Your task to perform on an android device: turn off picture-in-picture Image 0: 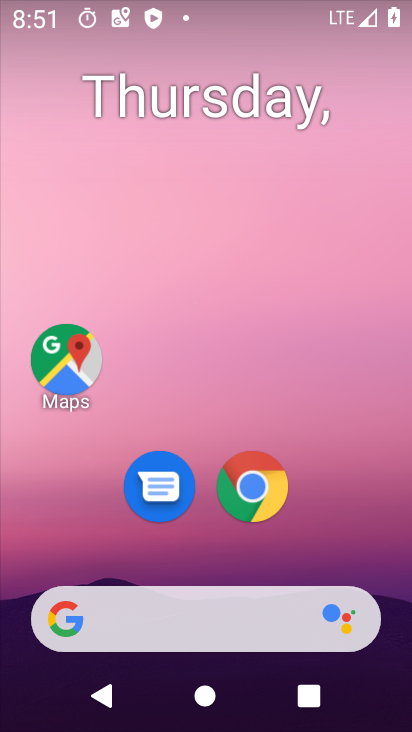
Step 0: drag from (161, 572) to (161, 22)
Your task to perform on an android device: turn off picture-in-picture Image 1: 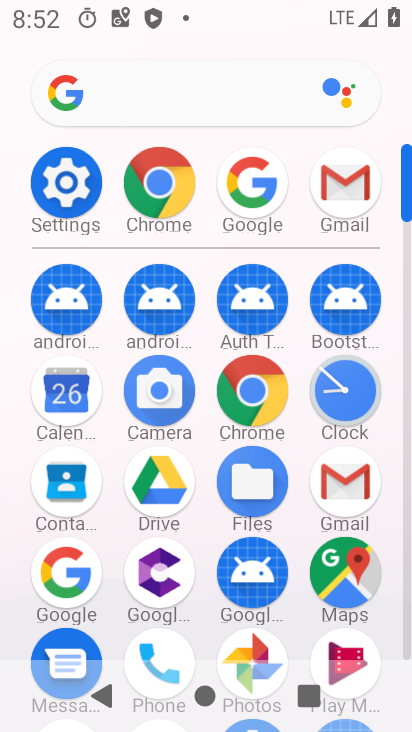
Step 1: click (82, 194)
Your task to perform on an android device: turn off picture-in-picture Image 2: 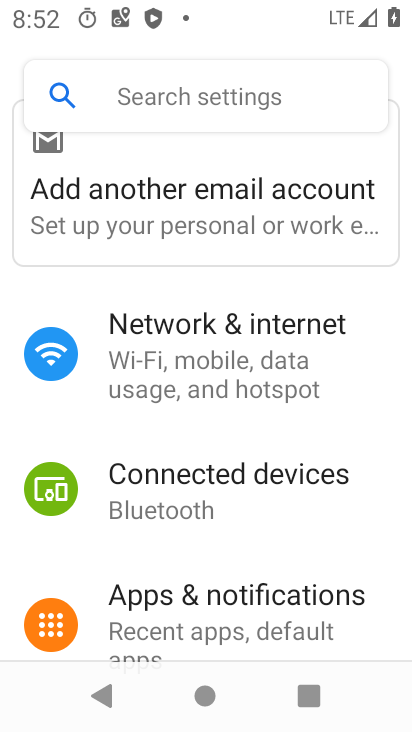
Step 2: click (189, 610)
Your task to perform on an android device: turn off picture-in-picture Image 3: 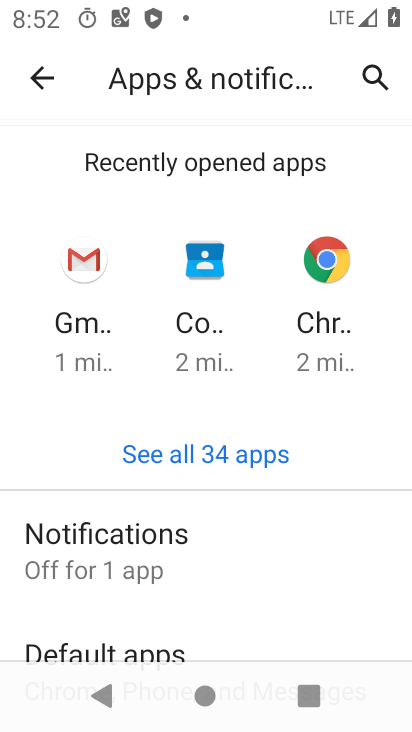
Step 3: drag from (196, 512) to (301, 7)
Your task to perform on an android device: turn off picture-in-picture Image 4: 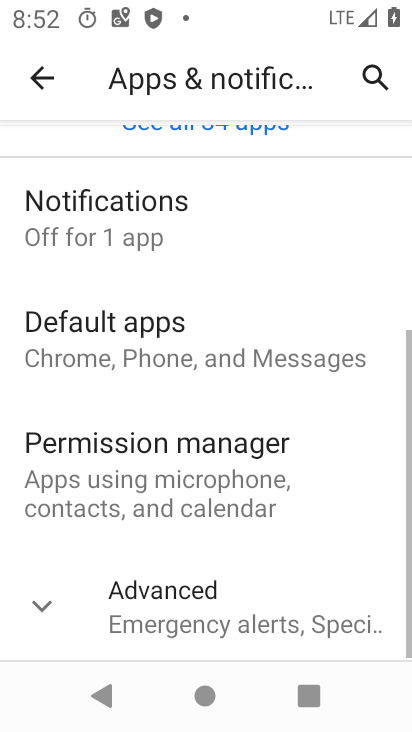
Step 4: click (272, 628)
Your task to perform on an android device: turn off picture-in-picture Image 5: 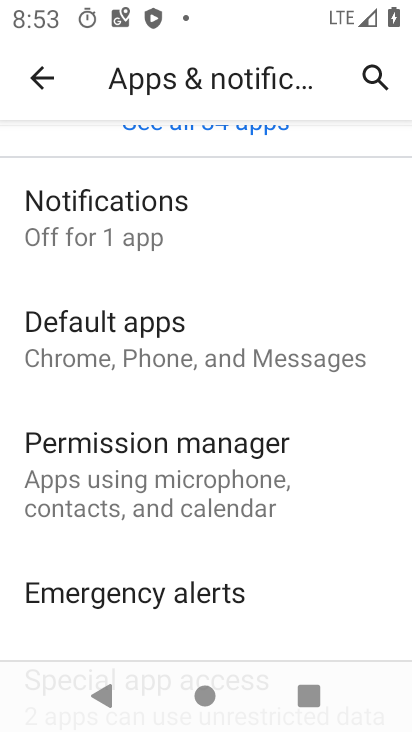
Step 5: drag from (209, 503) to (242, 67)
Your task to perform on an android device: turn off picture-in-picture Image 6: 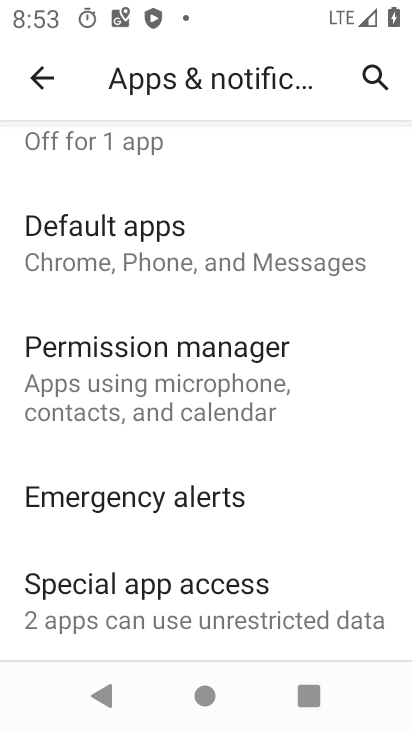
Step 6: click (235, 602)
Your task to perform on an android device: turn off picture-in-picture Image 7: 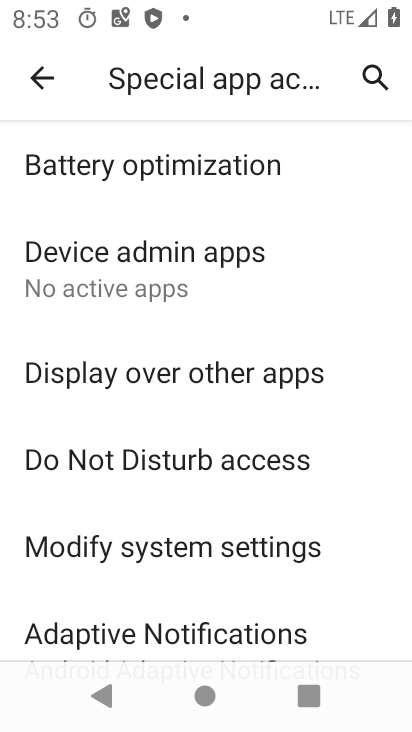
Step 7: drag from (221, 501) to (122, 122)
Your task to perform on an android device: turn off picture-in-picture Image 8: 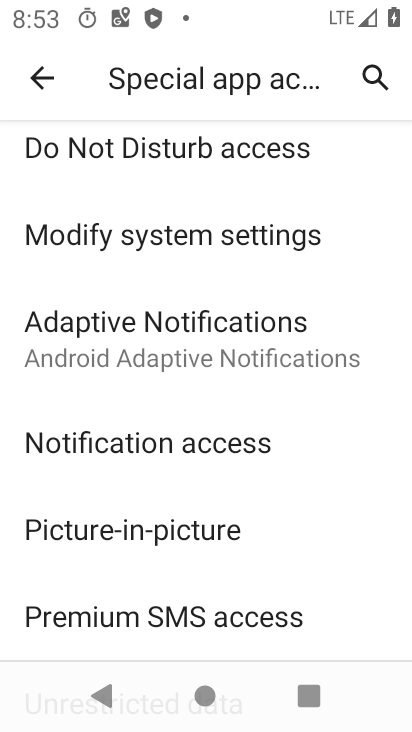
Step 8: click (268, 448)
Your task to perform on an android device: turn off picture-in-picture Image 9: 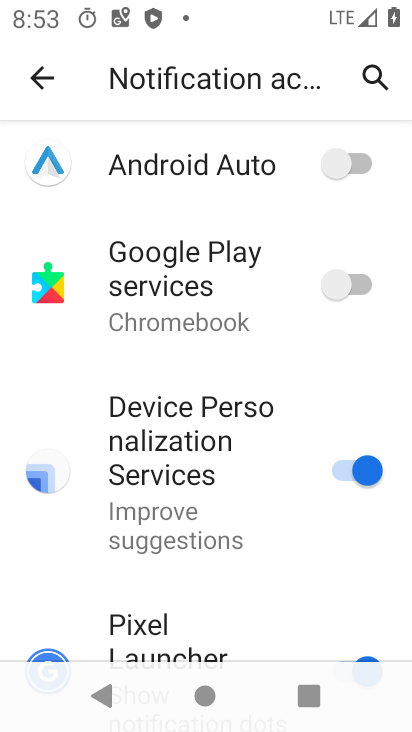
Step 9: click (352, 472)
Your task to perform on an android device: turn off picture-in-picture Image 10: 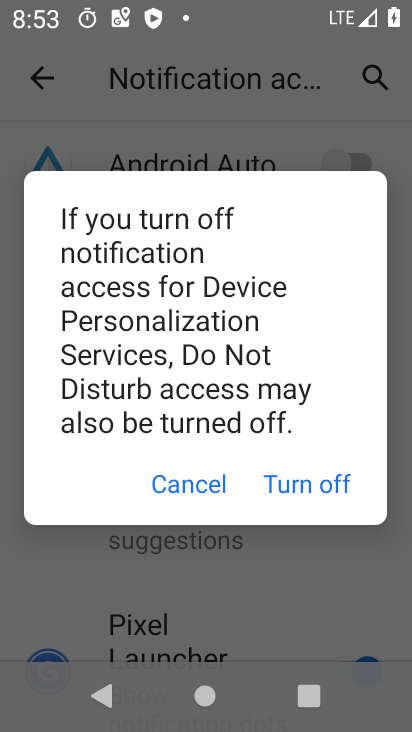
Step 10: click (334, 499)
Your task to perform on an android device: turn off picture-in-picture Image 11: 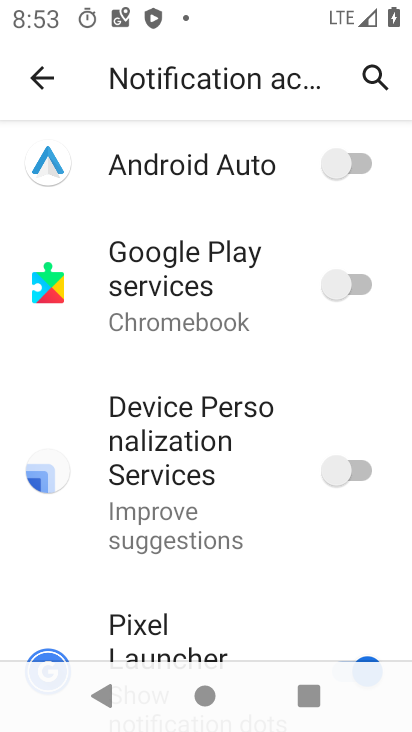
Step 11: task complete